Your task to perform on an android device: toggle sleep mode Image 0: 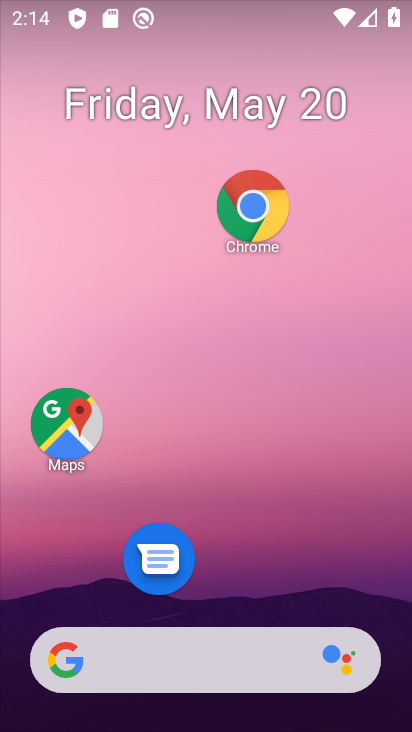
Step 0: drag from (253, 632) to (225, 112)
Your task to perform on an android device: toggle sleep mode Image 1: 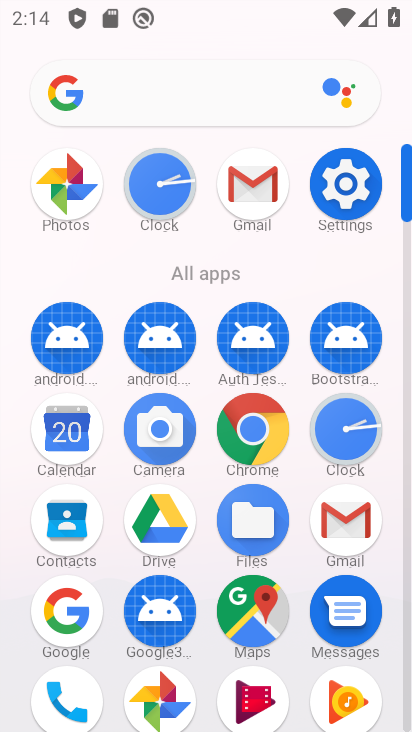
Step 1: click (343, 204)
Your task to perform on an android device: toggle sleep mode Image 2: 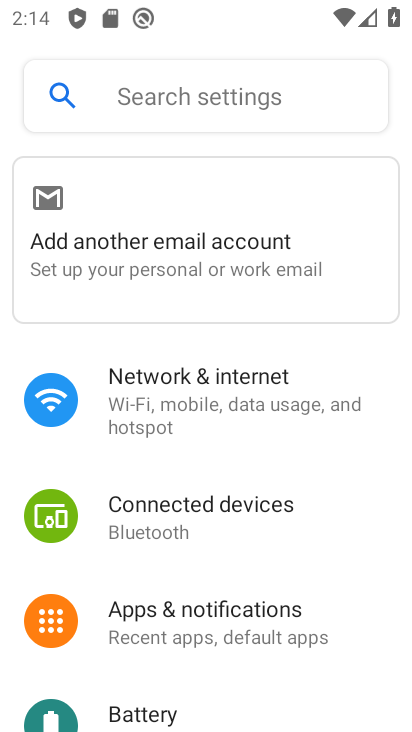
Step 2: drag from (303, 579) to (287, 157)
Your task to perform on an android device: toggle sleep mode Image 3: 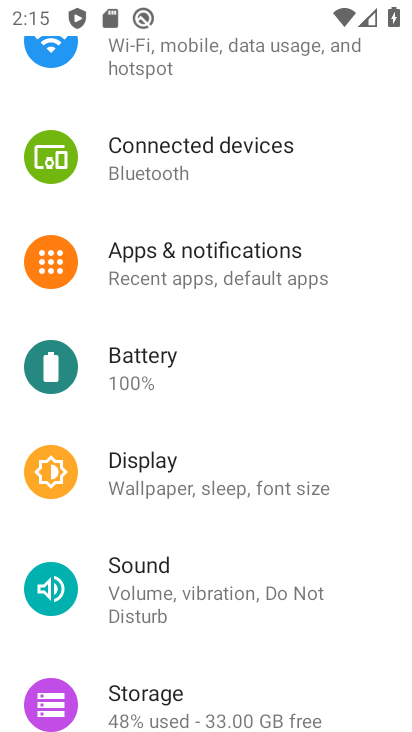
Step 3: click (155, 486)
Your task to perform on an android device: toggle sleep mode Image 4: 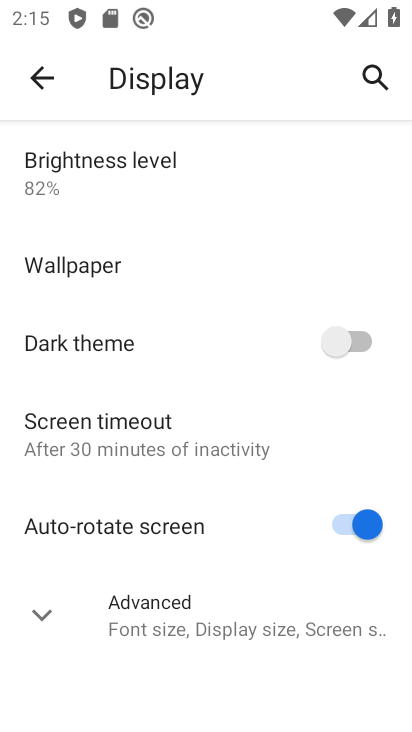
Step 4: task complete